Your task to perform on an android device: Show me recent news Image 0: 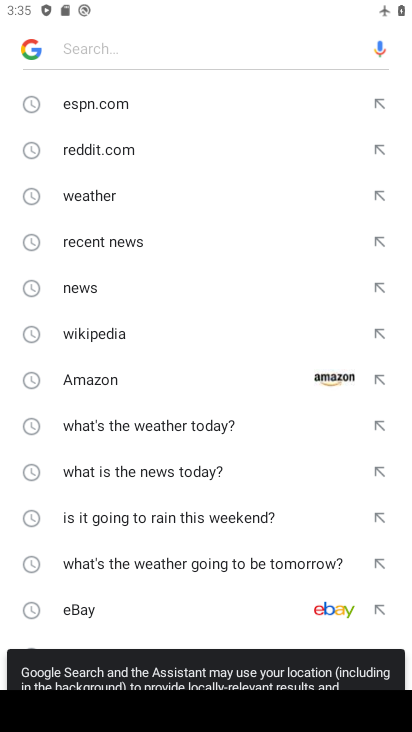
Step 0: press home button
Your task to perform on an android device: Show me recent news Image 1: 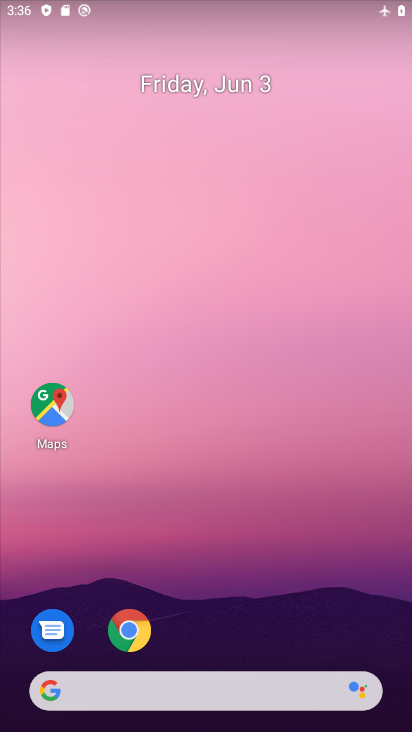
Step 1: click (122, 635)
Your task to perform on an android device: Show me recent news Image 2: 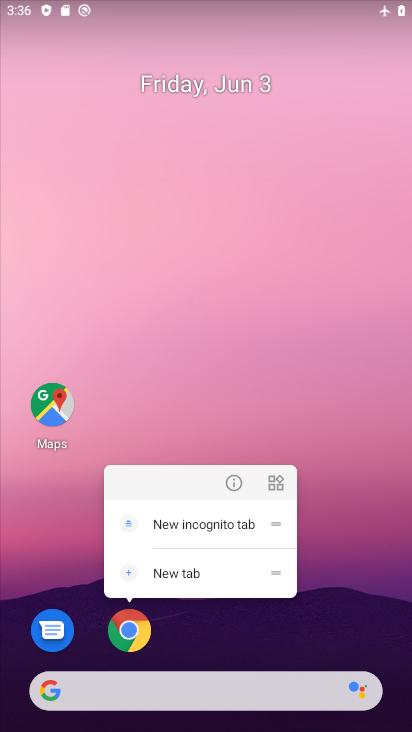
Step 2: click (129, 625)
Your task to perform on an android device: Show me recent news Image 3: 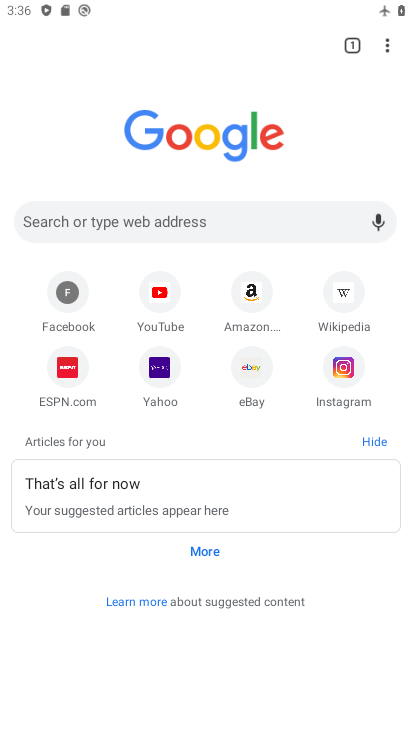
Step 3: click (203, 209)
Your task to perform on an android device: Show me recent news Image 4: 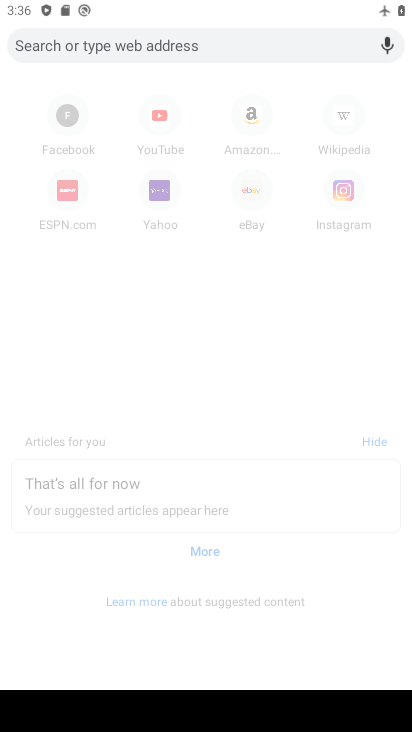
Step 4: type "Show me recent news"
Your task to perform on an android device: Show me recent news Image 5: 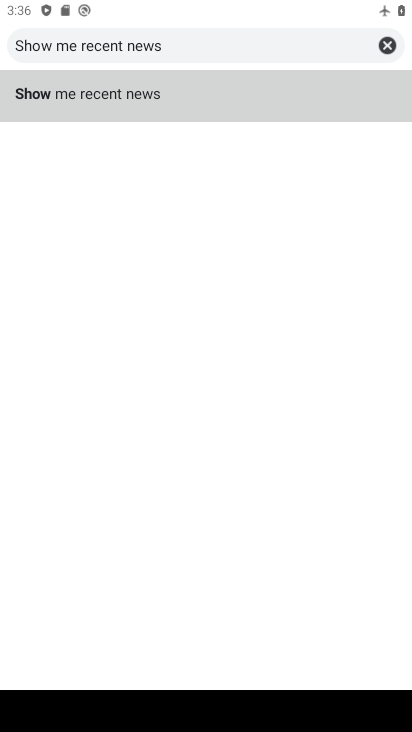
Step 5: click (117, 93)
Your task to perform on an android device: Show me recent news Image 6: 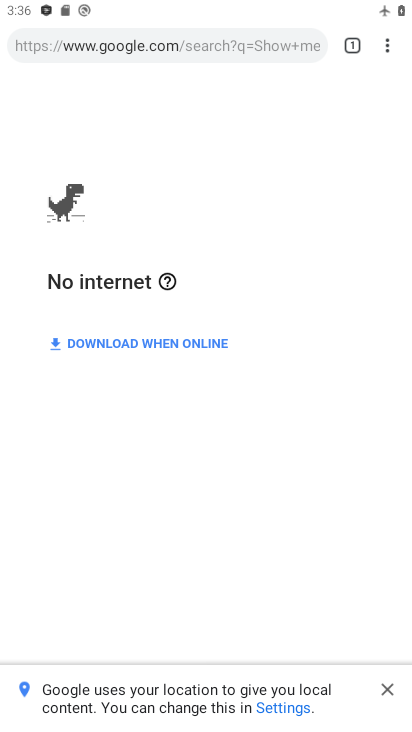
Step 6: drag from (347, 11) to (349, 333)
Your task to perform on an android device: Show me recent news Image 7: 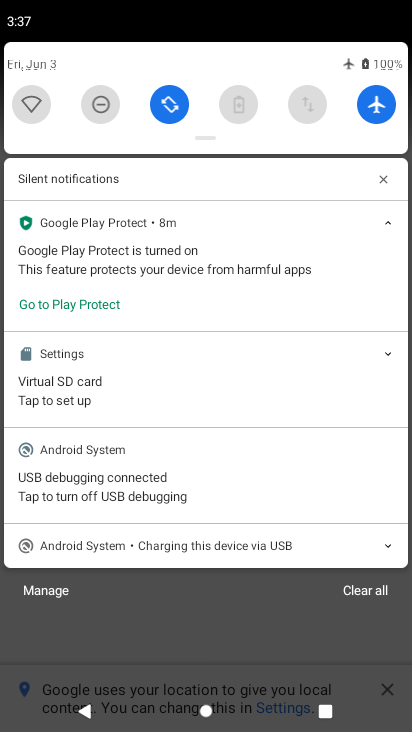
Step 7: click (373, 102)
Your task to perform on an android device: Show me recent news Image 8: 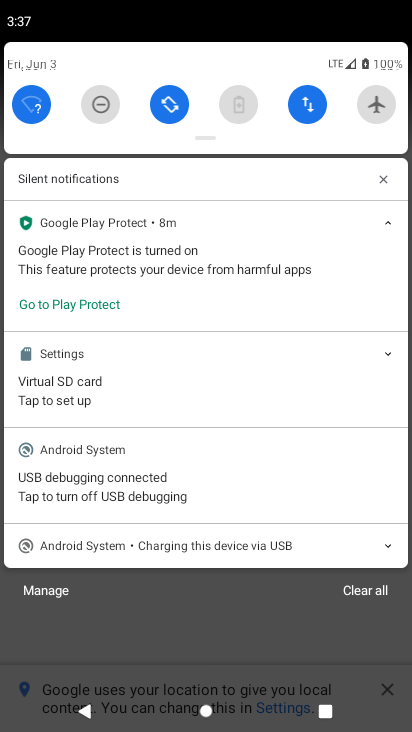
Step 8: click (336, 622)
Your task to perform on an android device: Show me recent news Image 9: 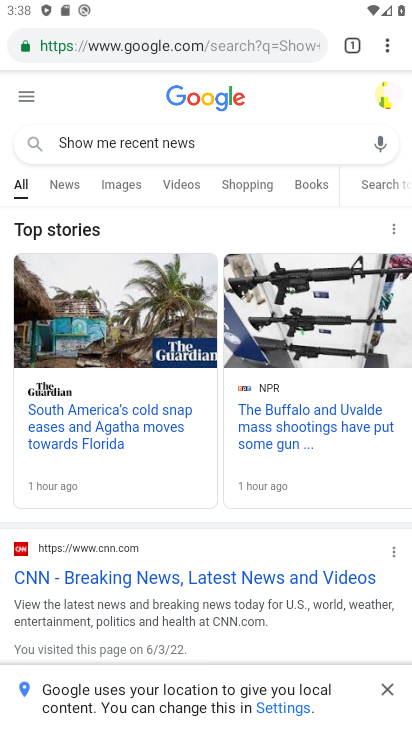
Step 9: task complete